Your task to perform on an android device: Open sound settings Image 0: 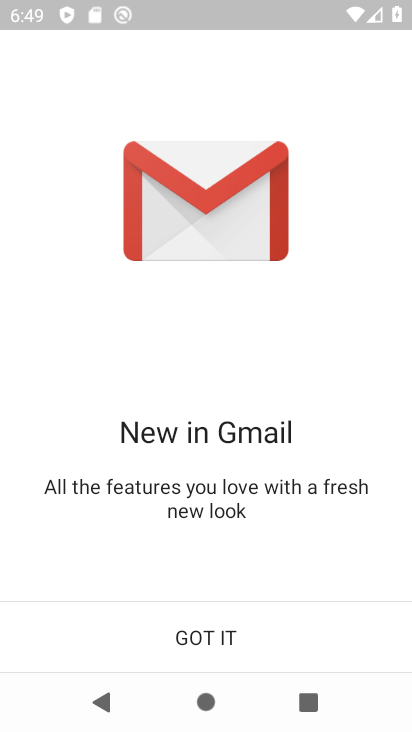
Step 0: press home button
Your task to perform on an android device: Open sound settings Image 1: 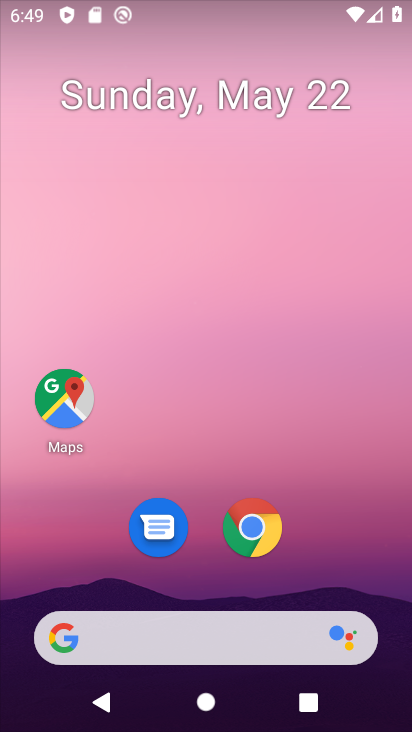
Step 1: drag from (368, 505) to (359, 104)
Your task to perform on an android device: Open sound settings Image 2: 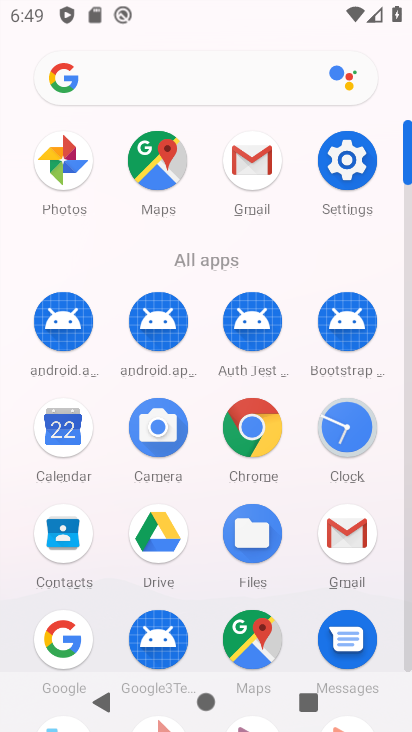
Step 2: click (357, 160)
Your task to perform on an android device: Open sound settings Image 3: 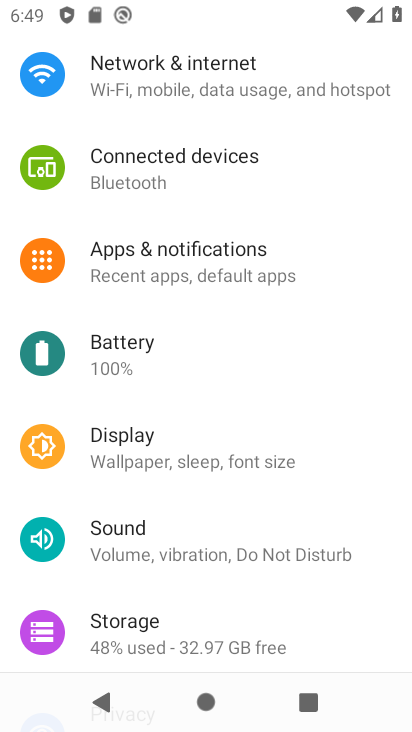
Step 3: click (201, 535)
Your task to perform on an android device: Open sound settings Image 4: 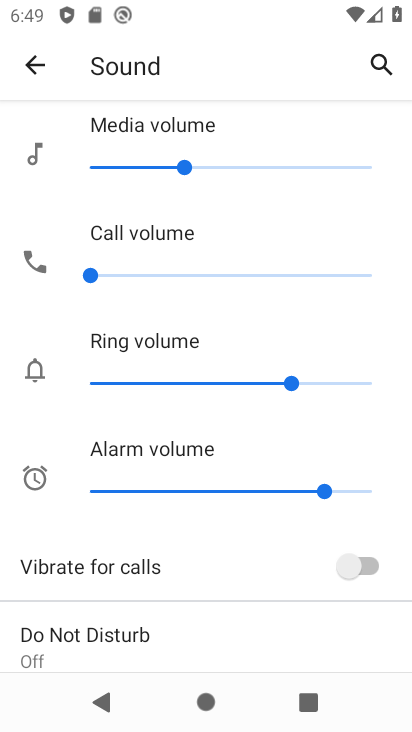
Step 4: task complete